Your task to perform on an android device: Go to Reddit.com Image 0: 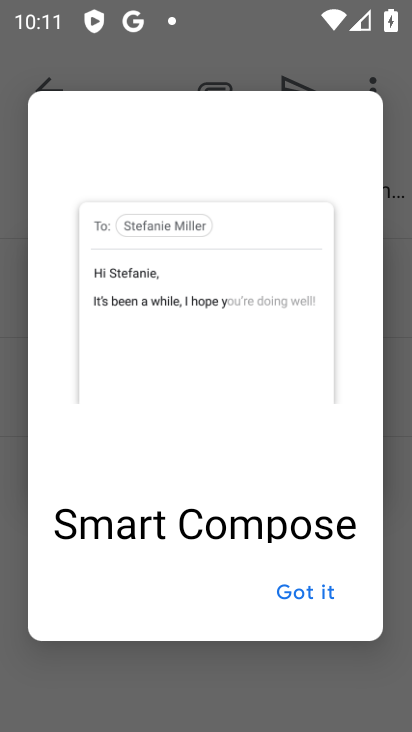
Step 0: press home button
Your task to perform on an android device: Go to Reddit.com Image 1: 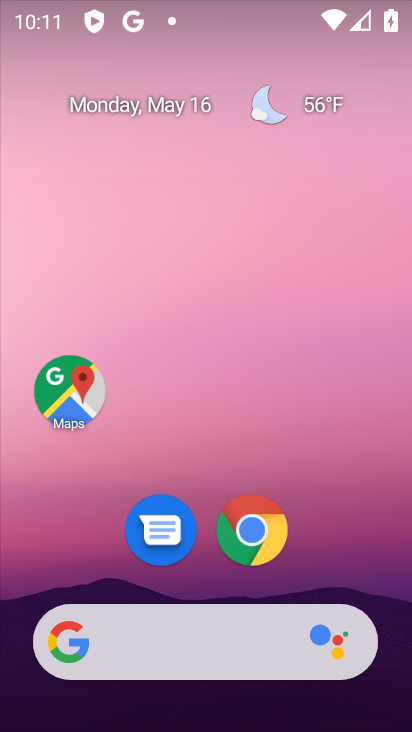
Step 1: drag from (346, 556) to (373, 95)
Your task to perform on an android device: Go to Reddit.com Image 2: 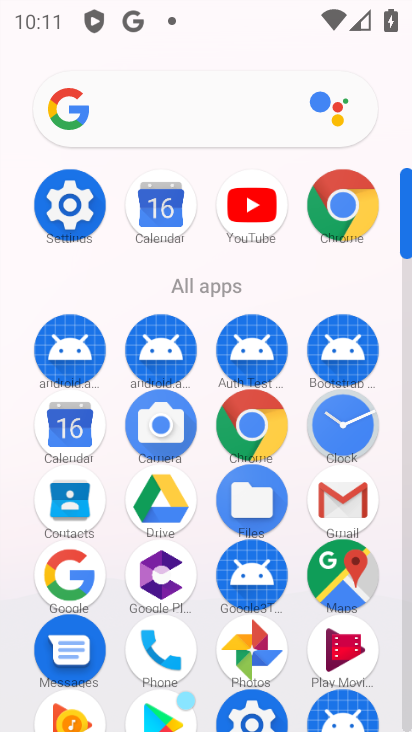
Step 2: click (361, 207)
Your task to perform on an android device: Go to Reddit.com Image 3: 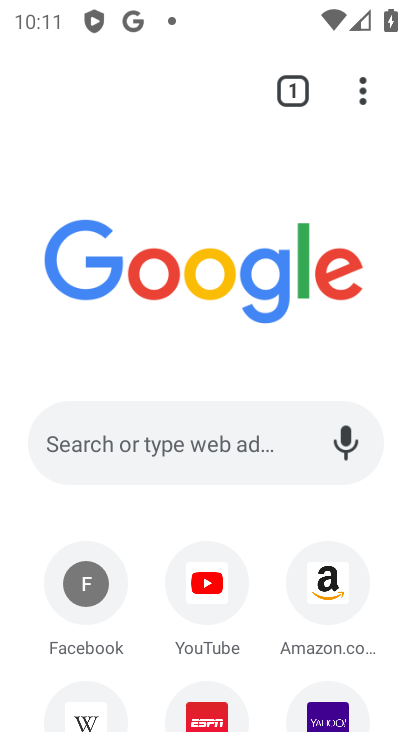
Step 3: click (248, 439)
Your task to perform on an android device: Go to Reddit.com Image 4: 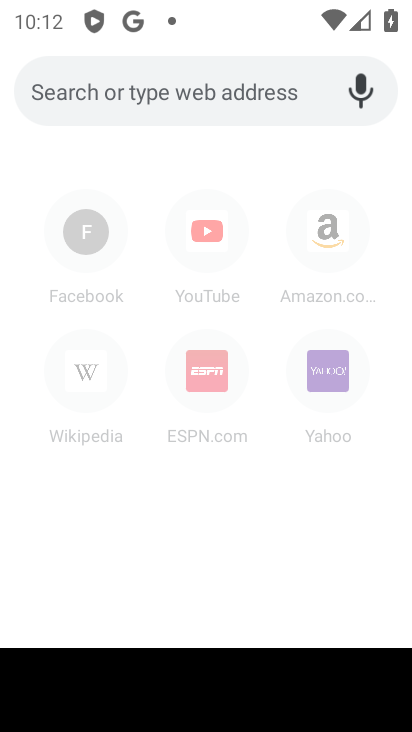
Step 4: type "riddit.com"
Your task to perform on an android device: Go to Reddit.com Image 5: 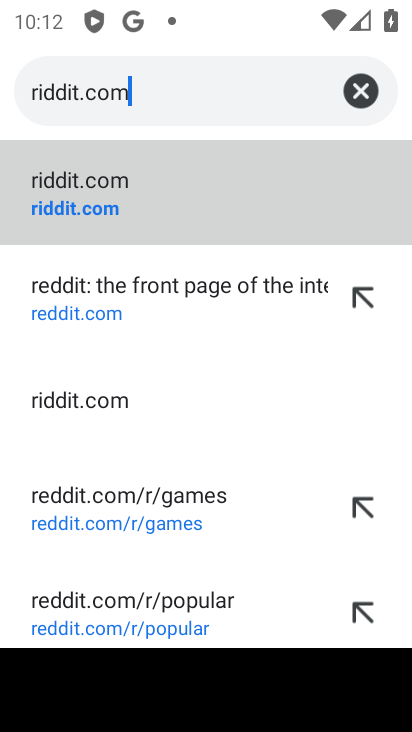
Step 5: click (93, 189)
Your task to perform on an android device: Go to Reddit.com Image 6: 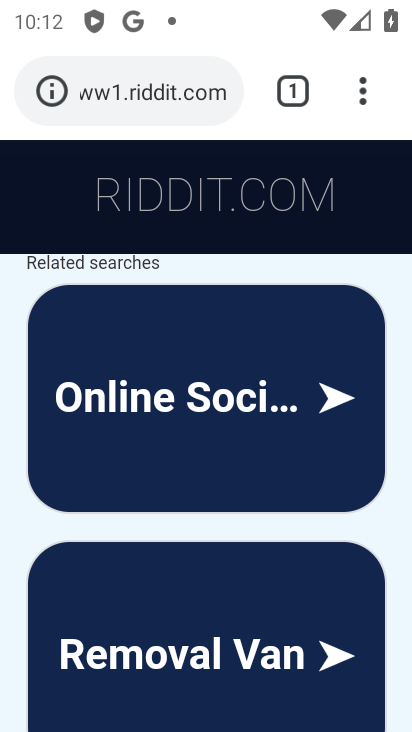
Step 6: task complete